Your task to perform on an android device: open a bookmark in the chrome app Image 0: 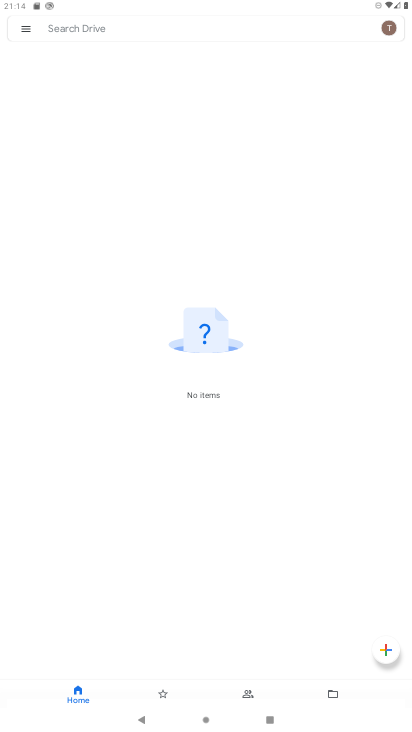
Step 0: press home button
Your task to perform on an android device: open a bookmark in the chrome app Image 1: 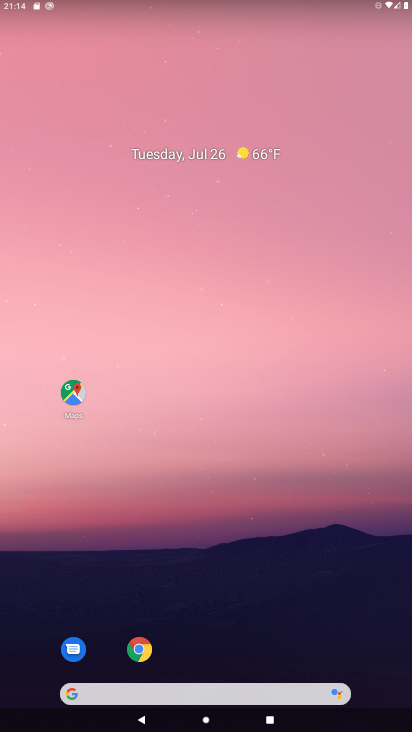
Step 1: click (142, 647)
Your task to perform on an android device: open a bookmark in the chrome app Image 2: 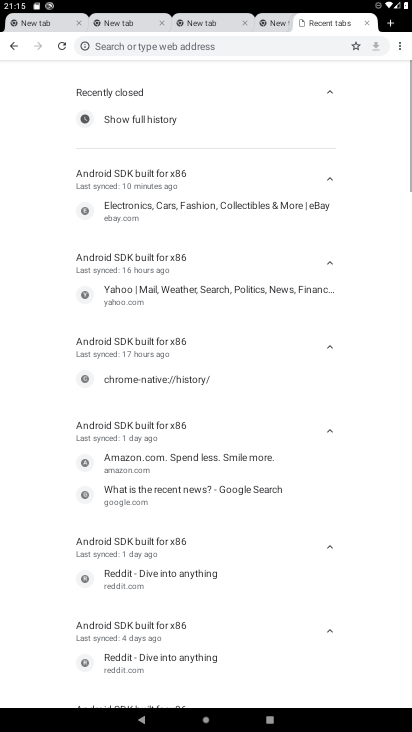
Step 2: click (398, 41)
Your task to perform on an android device: open a bookmark in the chrome app Image 3: 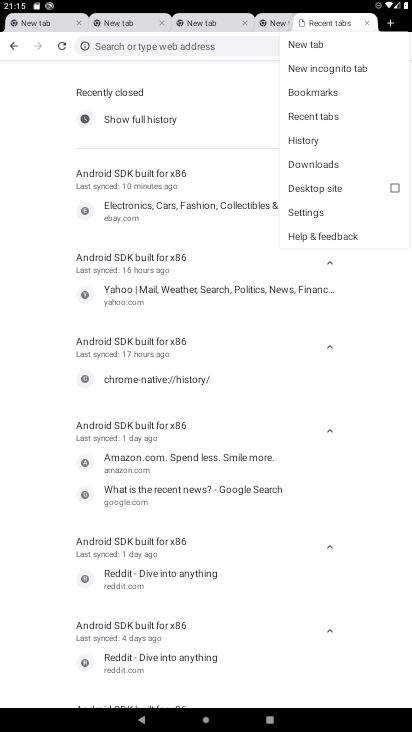
Step 3: click (337, 87)
Your task to perform on an android device: open a bookmark in the chrome app Image 4: 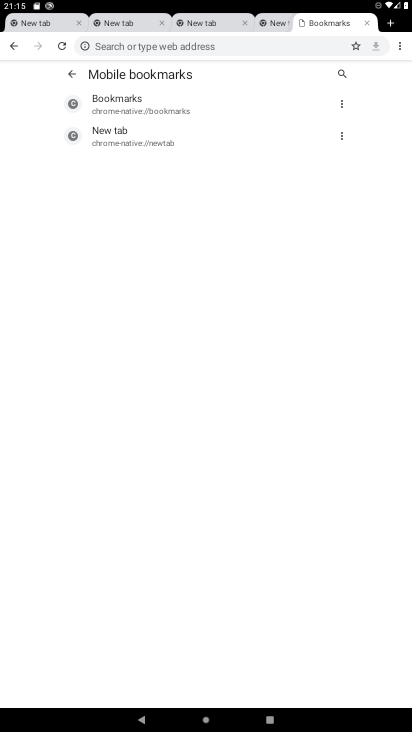
Step 4: click (145, 107)
Your task to perform on an android device: open a bookmark in the chrome app Image 5: 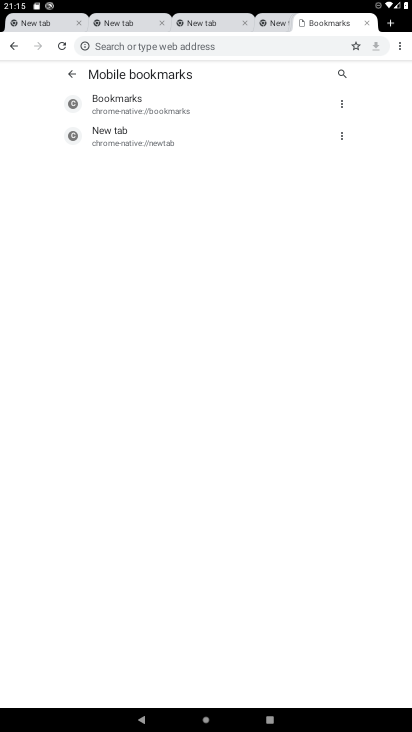
Step 5: click (145, 107)
Your task to perform on an android device: open a bookmark in the chrome app Image 6: 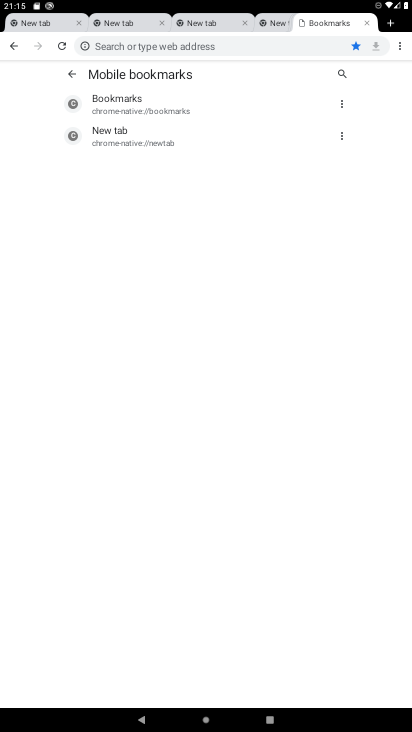
Step 6: click (175, 132)
Your task to perform on an android device: open a bookmark in the chrome app Image 7: 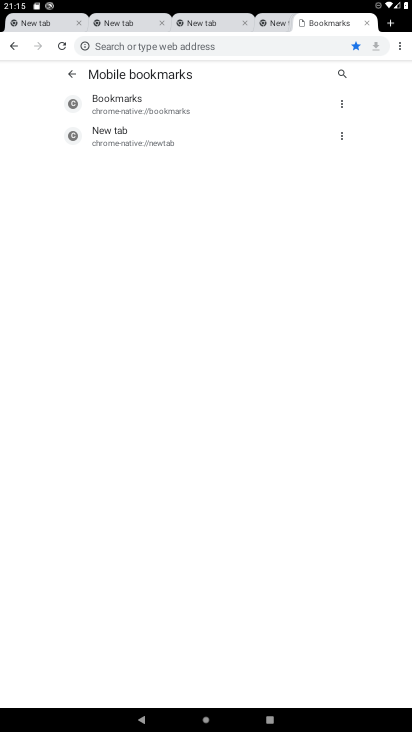
Step 7: click (175, 132)
Your task to perform on an android device: open a bookmark in the chrome app Image 8: 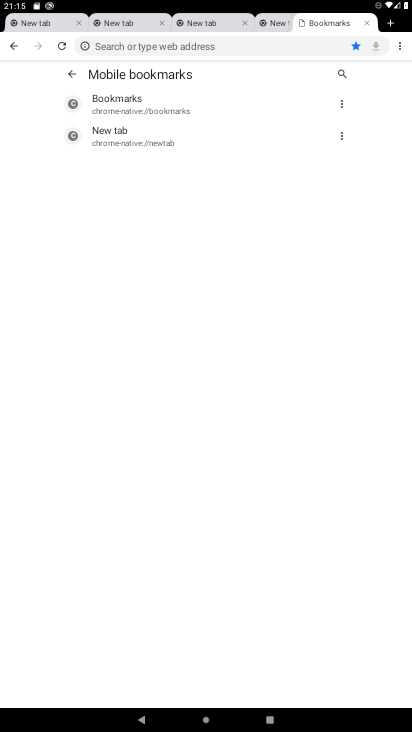
Step 8: click (175, 132)
Your task to perform on an android device: open a bookmark in the chrome app Image 9: 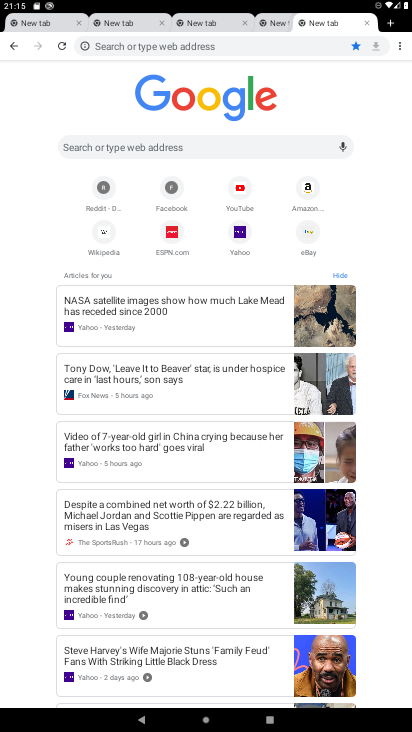
Step 9: task complete